Your task to perform on an android device: clear history in the chrome app Image 0: 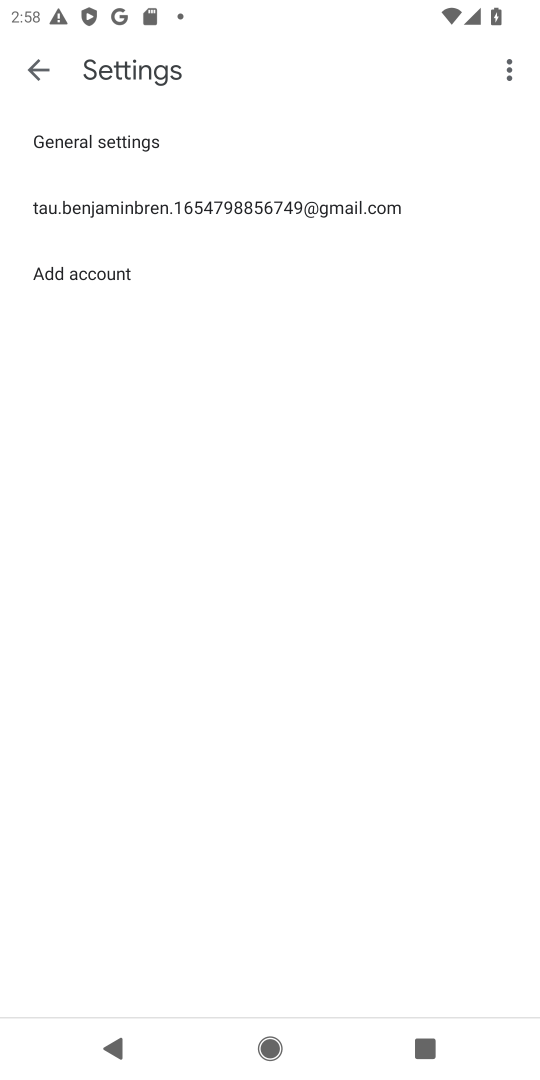
Step 0: press home button
Your task to perform on an android device: clear history in the chrome app Image 1: 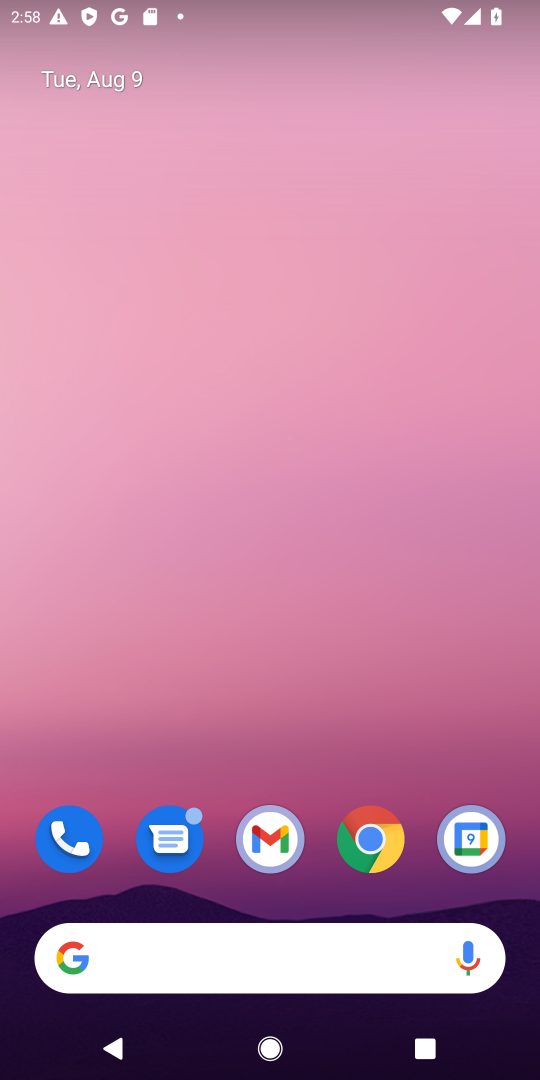
Step 1: drag from (289, 753) to (255, 7)
Your task to perform on an android device: clear history in the chrome app Image 2: 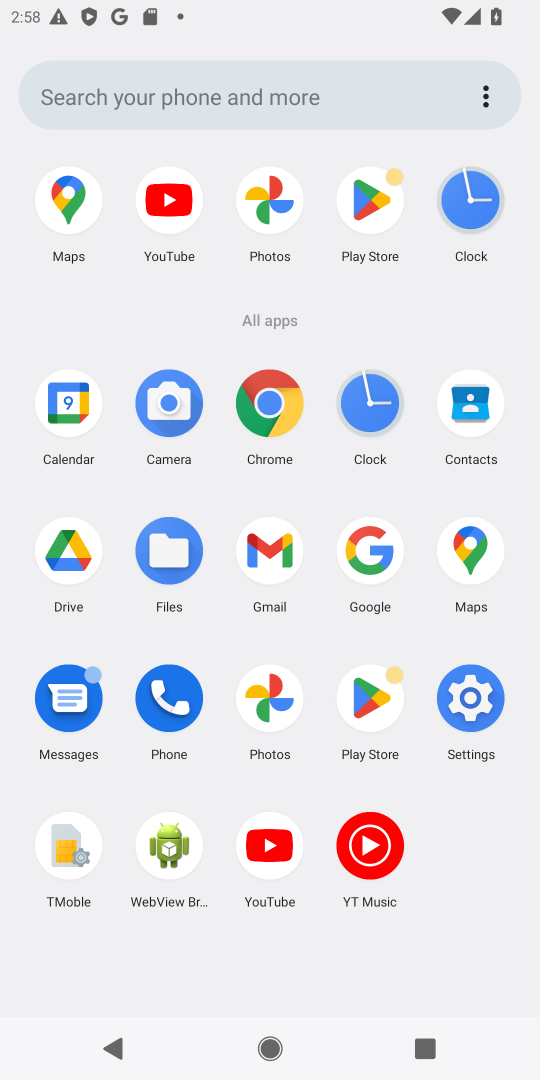
Step 2: click (281, 417)
Your task to perform on an android device: clear history in the chrome app Image 3: 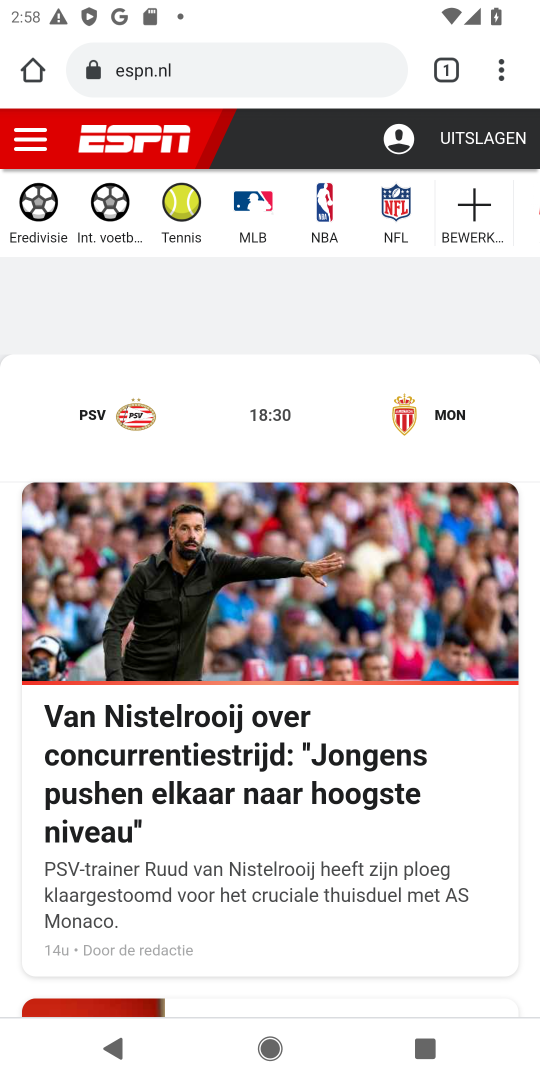
Step 3: click (508, 70)
Your task to perform on an android device: clear history in the chrome app Image 4: 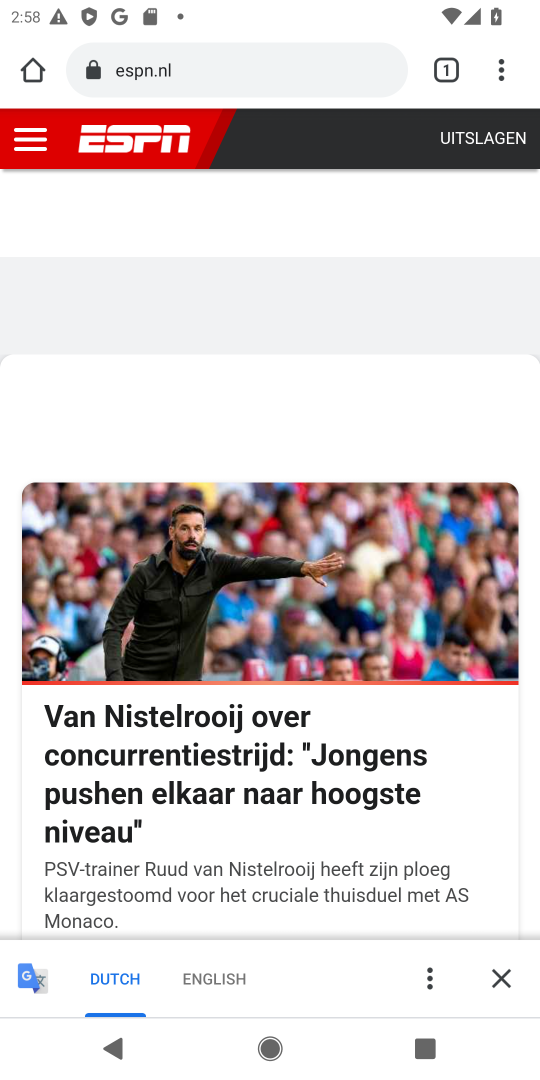
Step 4: drag from (502, 65) to (256, 907)
Your task to perform on an android device: clear history in the chrome app Image 5: 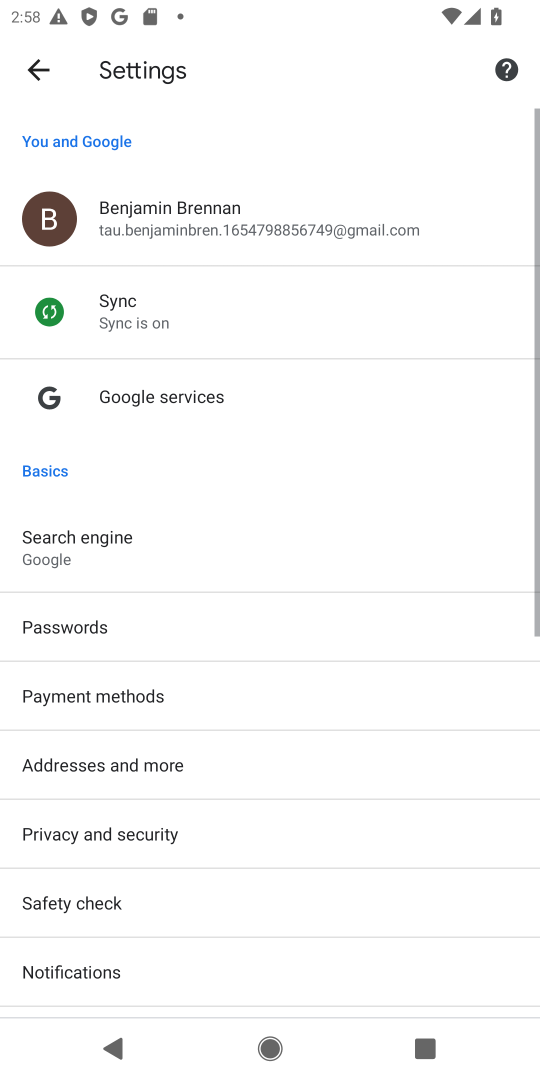
Step 5: click (253, 842)
Your task to perform on an android device: clear history in the chrome app Image 6: 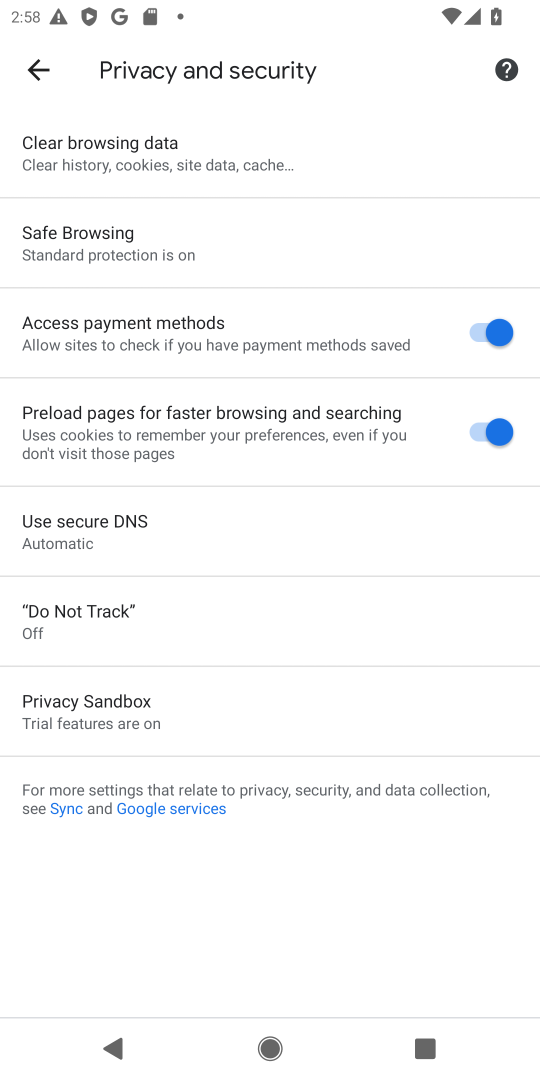
Step 6: click (358, 156)
Your task to perform on an android device: clear history in the chrome app Image 7: 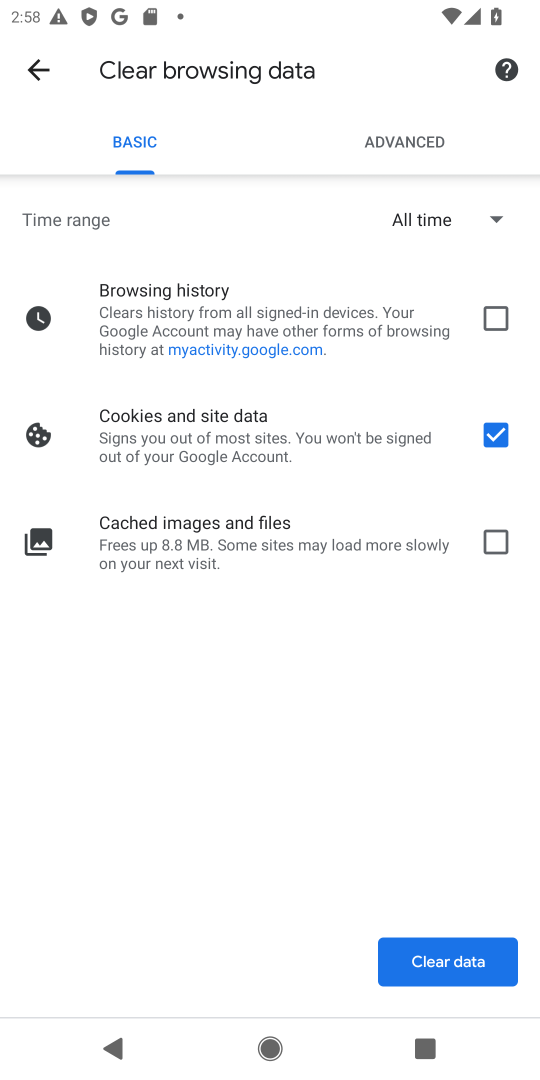
Step 7: click (496, 314)
Your task to perform on an android device: clear history in the chrome app Image 8: 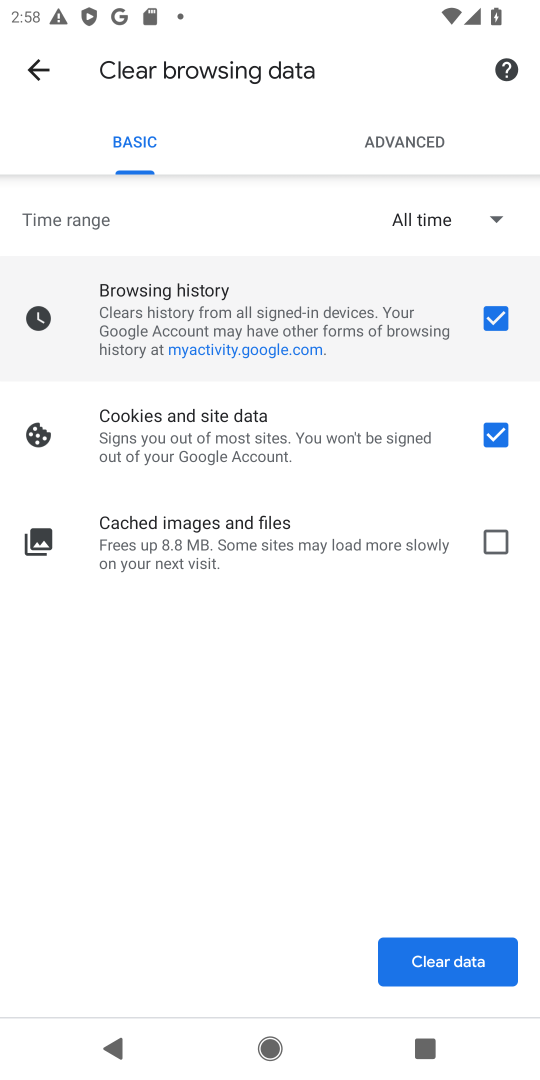
Step 8: click (496, 428)
Your task to perform on an android device: clear history in the chrome app Image 9: 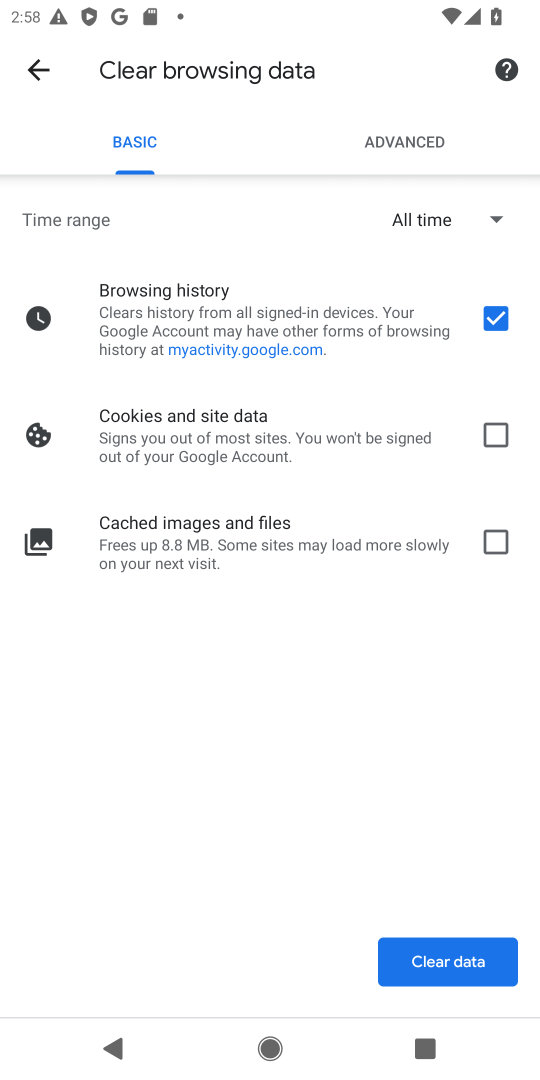
Step 9: click (439, 968)
Your task to perform on an android device: clear history in the chrome app Image 10: 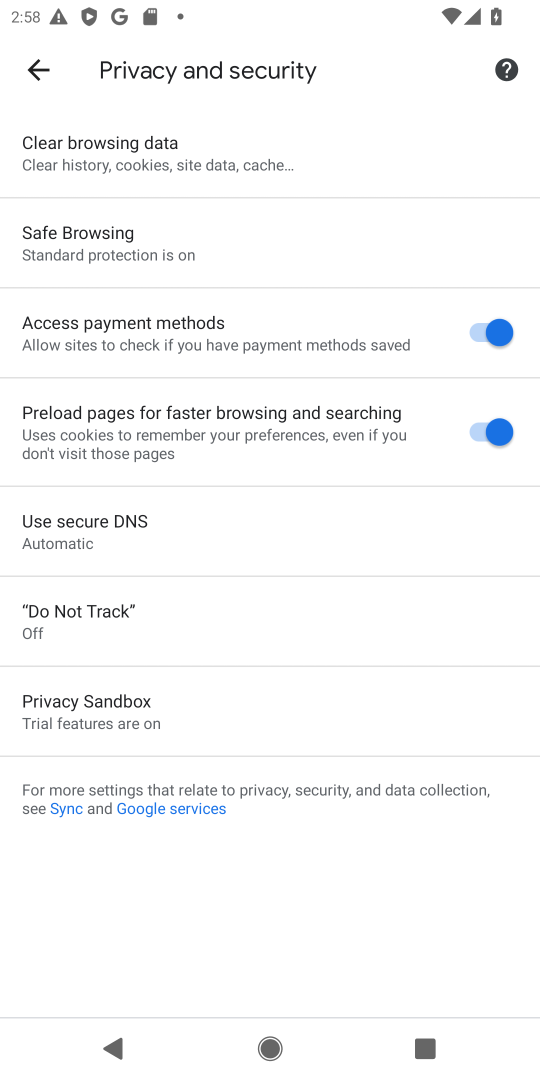
Step 10: task complete